Your task to perform on an android device: Open Google Maps Image 0: 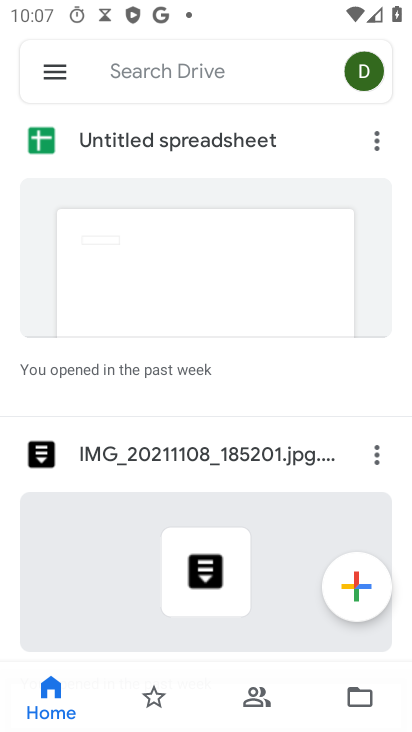
Step 0: press home button
Your task to perform on an android device: Open Google Maps Image 1: 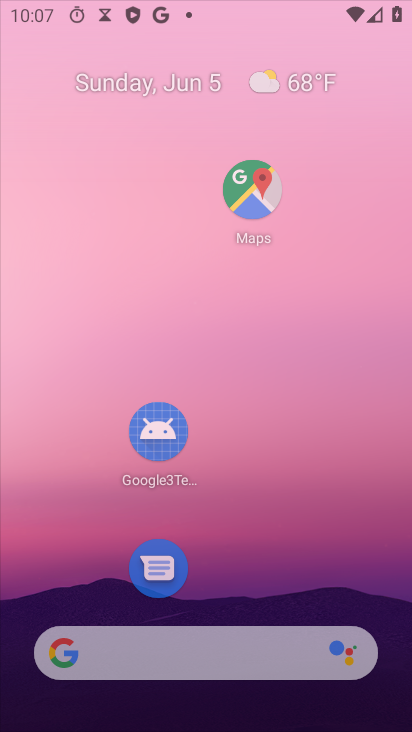
Step 1: press home button
Your task to perform on an android device: Open Google Maps Image 2: 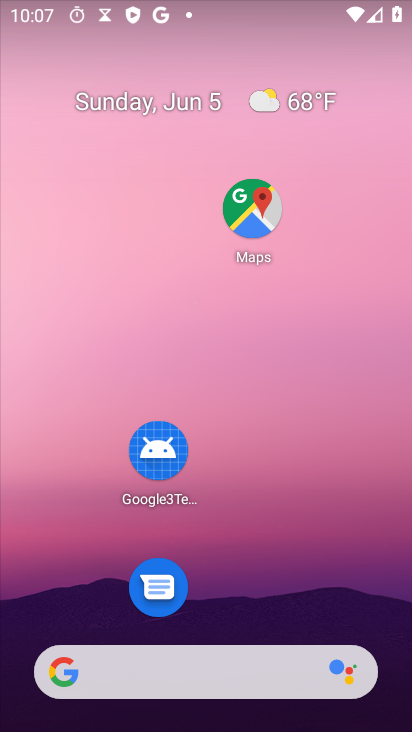
Step 2: drag from (285, 563) to (192, 90)
Your task to perform on an android device: Open Google Maps Image 3: 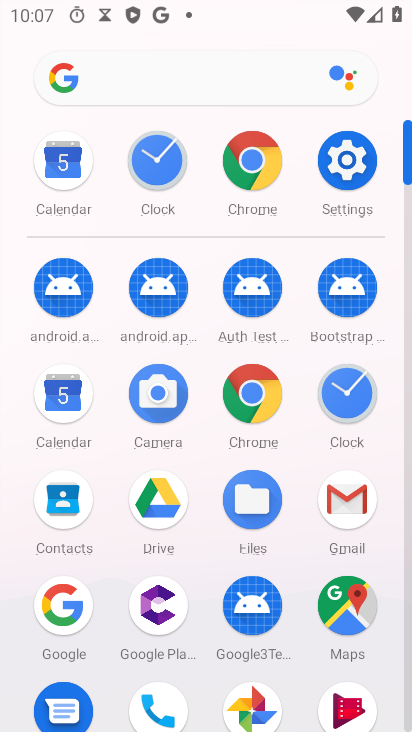
Step 3: click (326, 617)
Your task to perform on an android device: Open Google Maps Image 4: 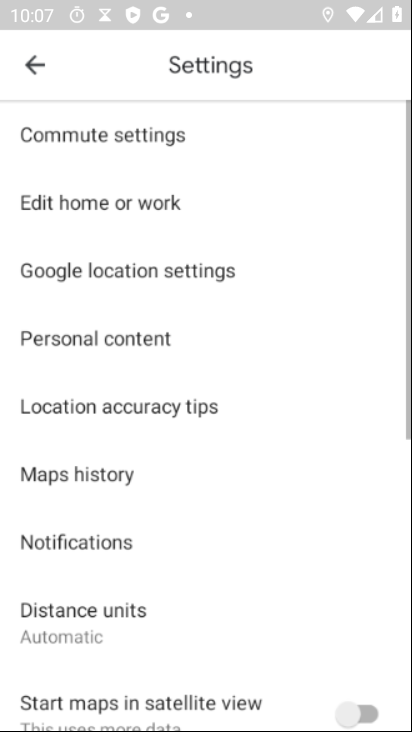
Step 4: click (326, 617)
Your task to perform on an android device: Open Google Maps Image 5: 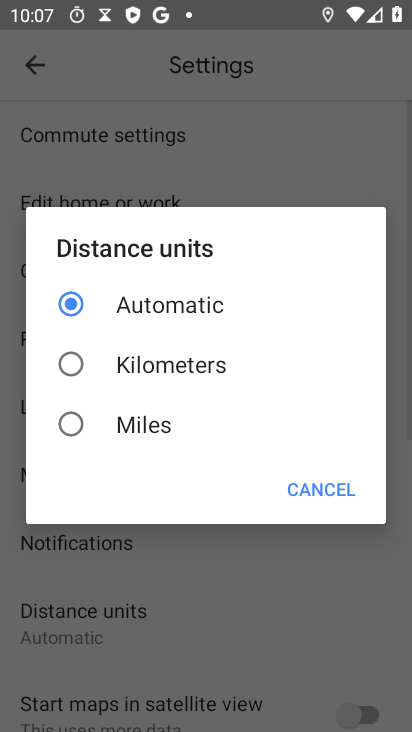
Step 5: click (150, 146)
Your task to perform on an android device: Open Google Maps Image 6: 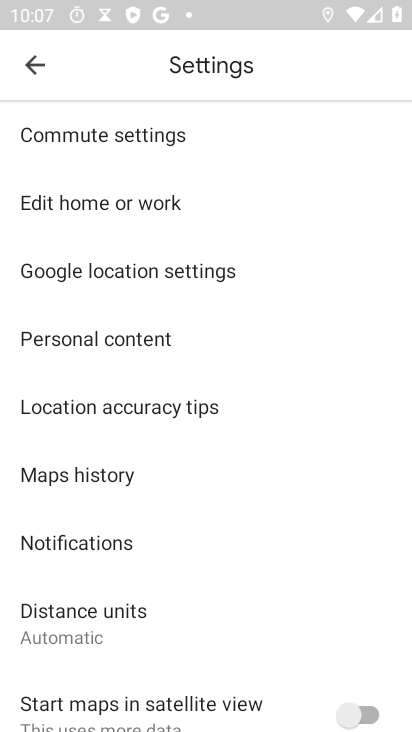
Step 6: click (31, 64)
Your task to perform on an android device: Open Google Maps Image 7: 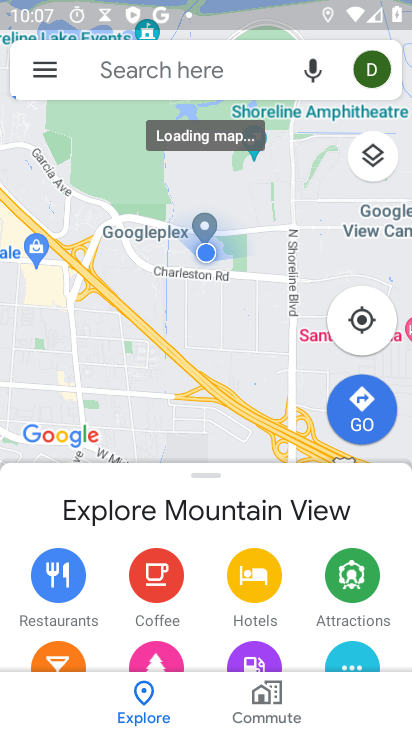
Step 7: task complete